Your task to perform on an android device: Do I have any events tomorrow? Image 0: 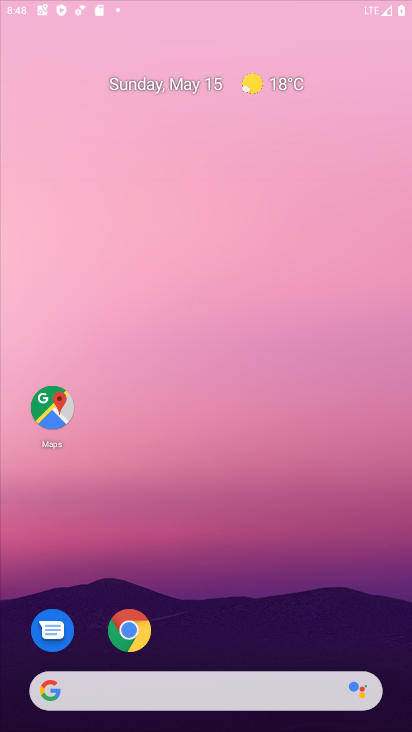
Step 0: click (344, 134)
Your task to perform on an android device: Do I have any events tomorrow? Image 1: 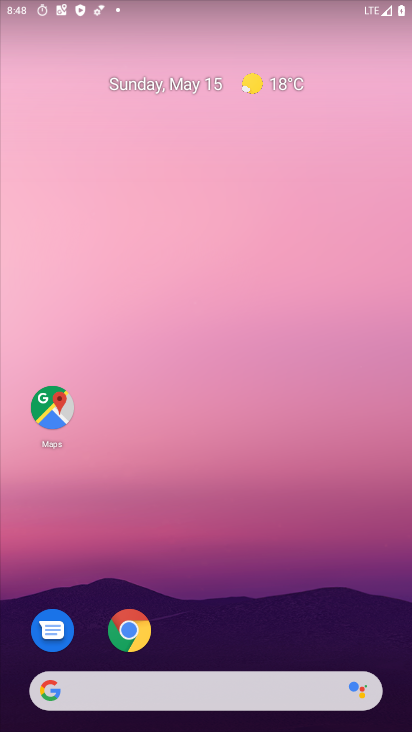
Step 1: drag from (185, 638) to (207, 66)
Your task to perform on an android device: Do I have any events tomorrow? Image 2: 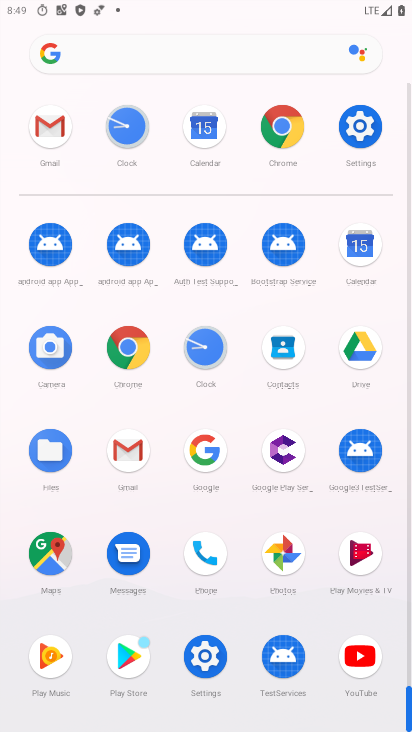
Step 2: click (353, 245)
Your task to perform on an android device: Do I have any events tomorrow? Image 3: 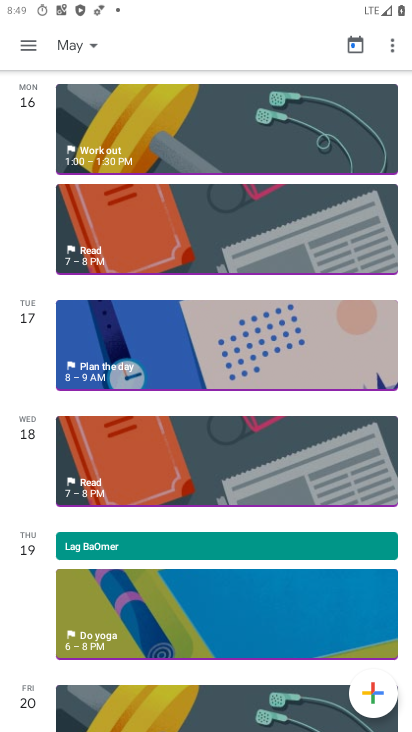
Step 3: drag from (217, 581) to (249, 243)
Your task to perform on an android device: Do I have any events tomorrow? Image 4: 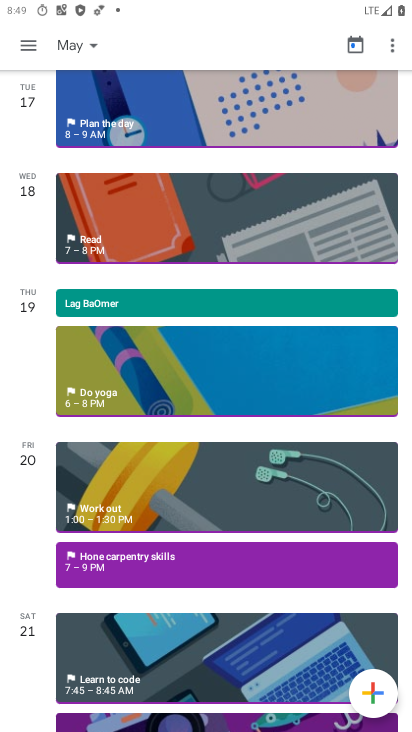
Step 4: click (98, 34)
Your task to perform on an android device: Do I have any events tomorrow? Image 5: 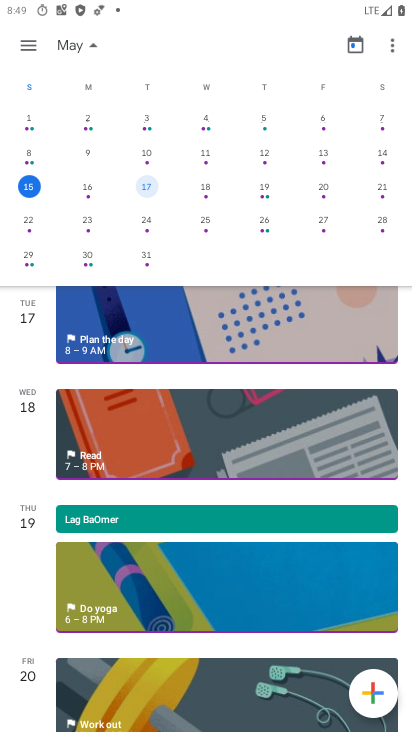
Step 5: drag from (257, 666) to (267, 206)
Your task to perform on an android device: Do I have any events tomorrow? Image 6: 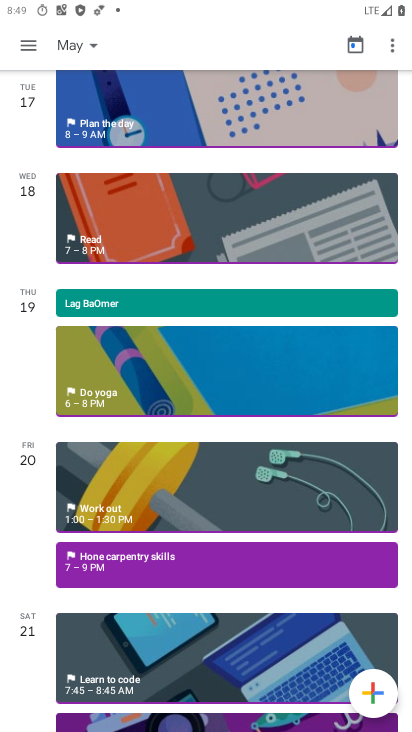
Step 6: drag from (225, 140) to (169, 617)
Your task to perform on an android device: Do I have any events tomorrow? Image 7: 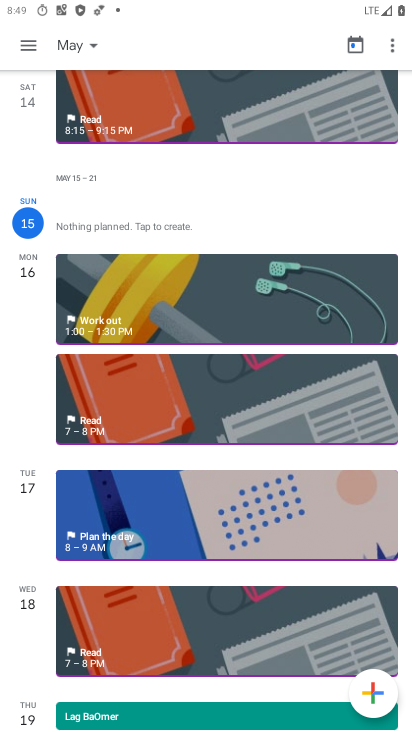
Step 7: click (98, 45)
Your task to perform on an android device: Do I have any events tomorrow? Image 8: 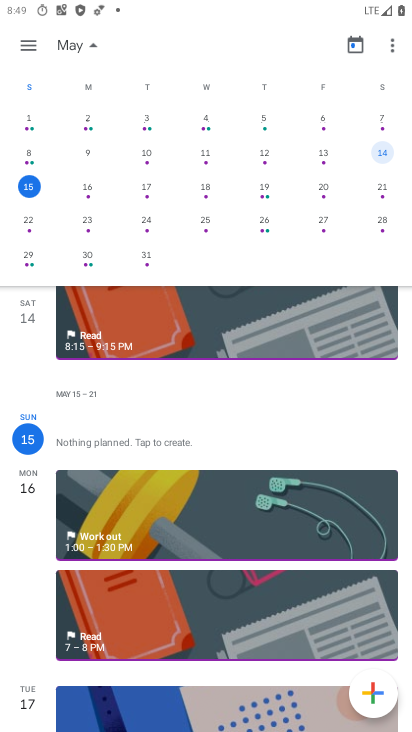
Step 8: click (84, 184)
Your task to perform on an android device: Do I have any events tomorrow? Image 9: 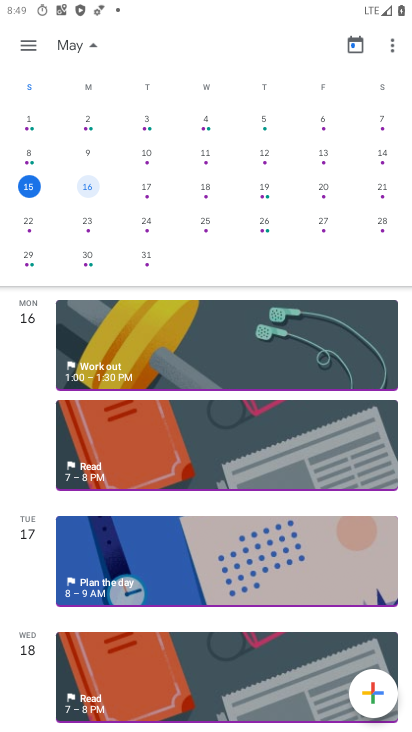
Step 9: drag from (232, 514) to (304, 149)
Your task to perform on an android device: Do I have any events tomorrow? Image 10: 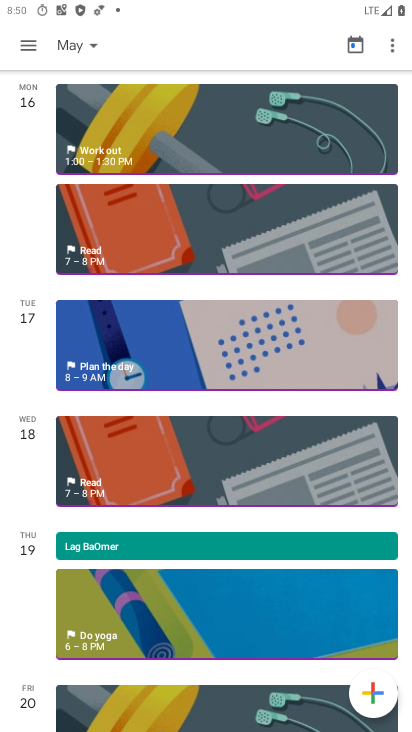
Step 10: click (84, 51)
Your task to perform on an android device: Do I have any events tomorrow? Image 11: 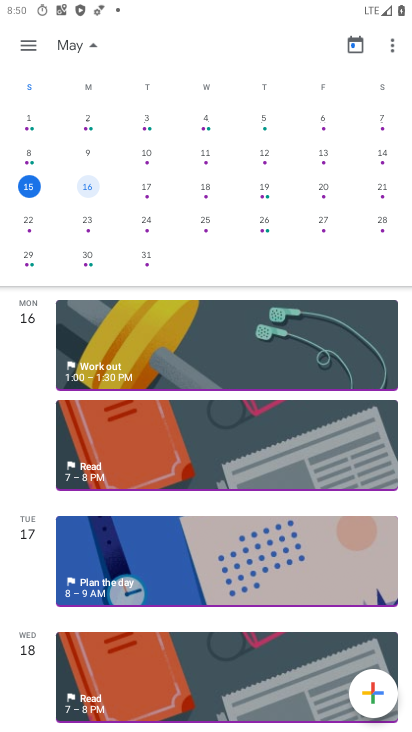
Step 11: click (97, 176)
Your task to perform on an android device: Do I have any events tomorrow? Image 12: 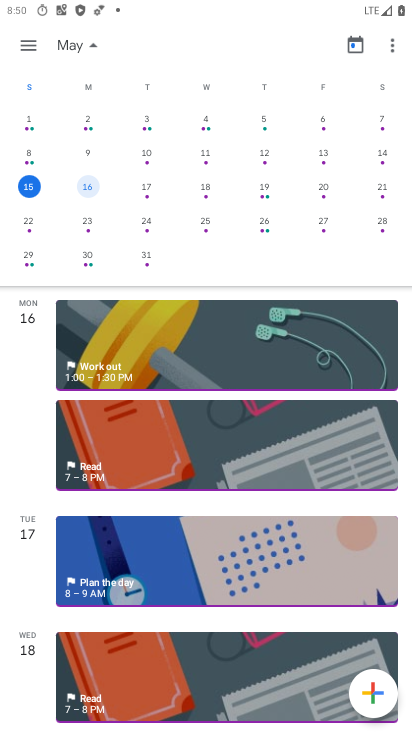
Step 12: click (93, 177)
Your task to perform on an android device: Do I have any events tomorrow? Image 13: 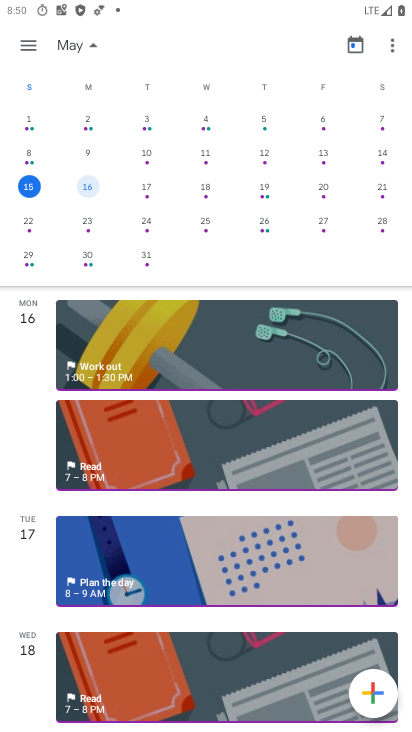
Step 13: task complete